Your task to perform on an android device: Go to sound settings Image 0: 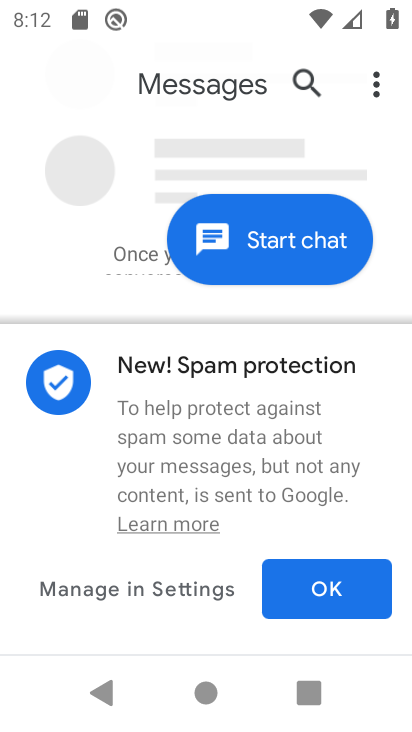
Step 0: click (296, 591)
Your task to perform on an android device: Go to sound settings Image 1: 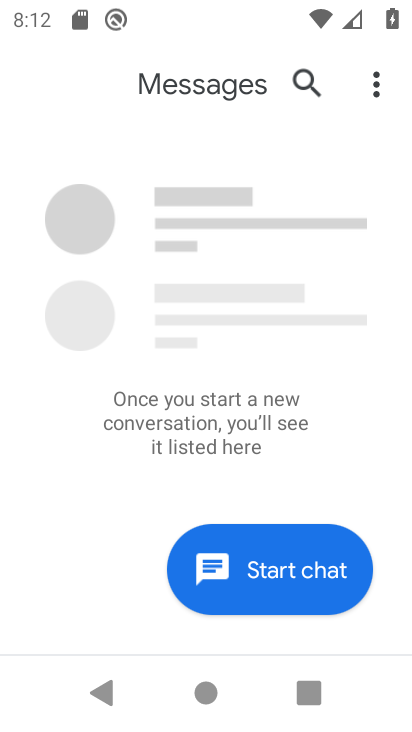
Step 1: press home button
Your task to perform on an android device: Go to sound settings Image 2: 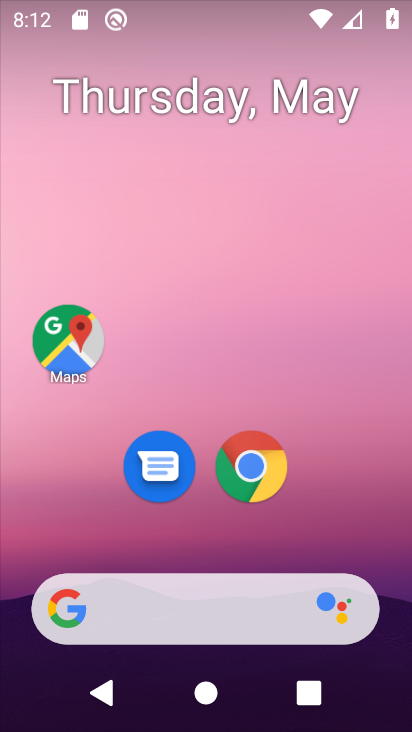
Step 2: drag from (344, 536) to (283, 104)
Your task to perform on an android device: Go to sound settings Image 3: 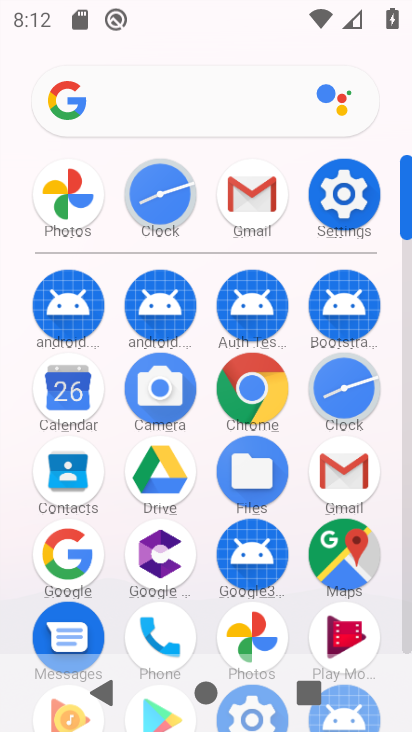
Step 3: click (334, 225)
Your task to perform on an android device: Go to sound settings Image 4: 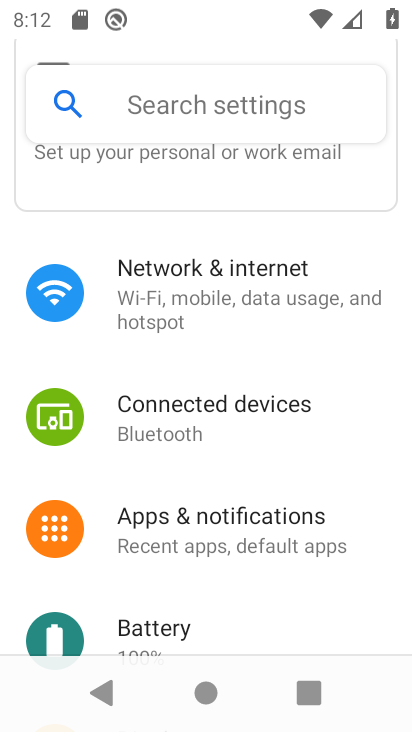
Step 4: drag from (211, 574) to (249, 81)
Your task to perform on an android device: Go to sound settings Image 5: 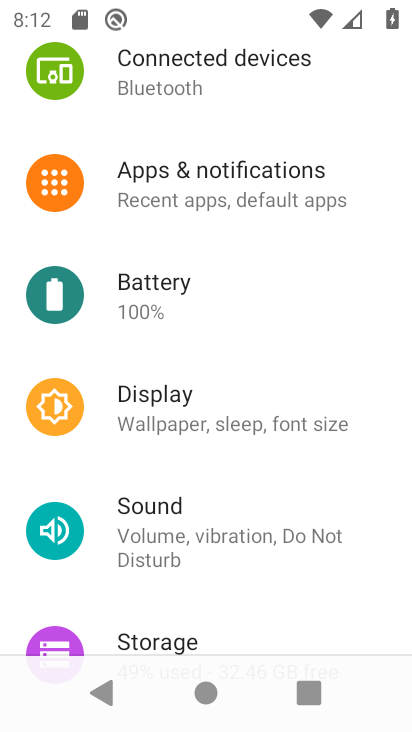
Step 5: drag from (234, 586) to (270, 371)
Your task to perform on an android device: Go to sound settings Image 6: 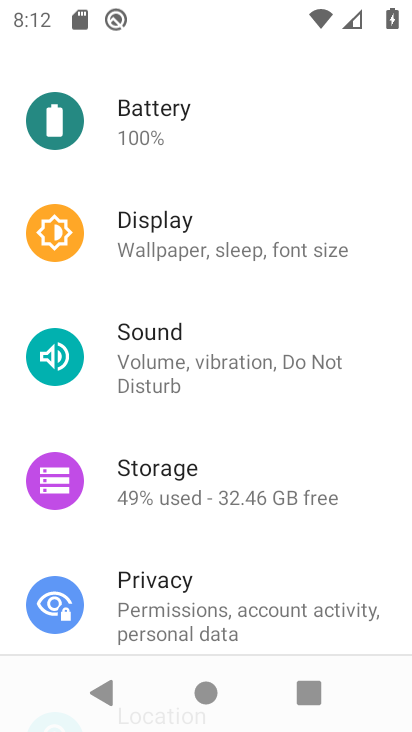
Step 6: click (227, 383)
Your task to perform on an android device: Go to sound settings Image 7: 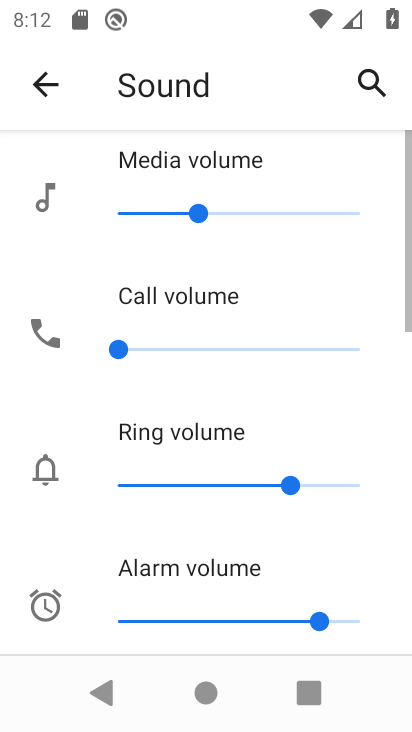
Step 7: task complete